Your task to perform on an android device: Open Google Maps and go to "Timeline" Image 0: 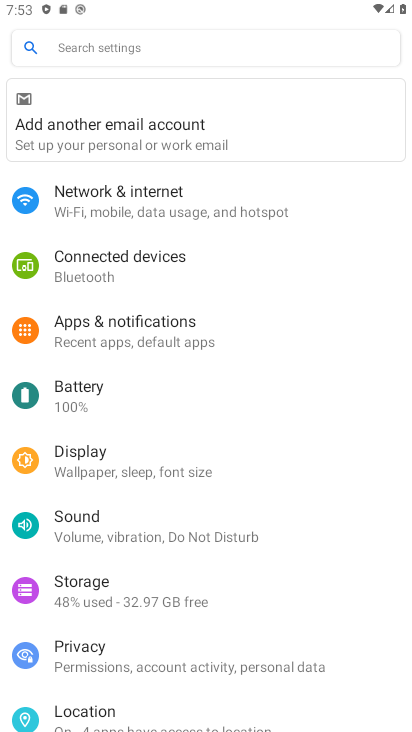
Step 0: press home button
Your task to perform on an android device: Open Google Maps and go to "Timeline" Image 1: 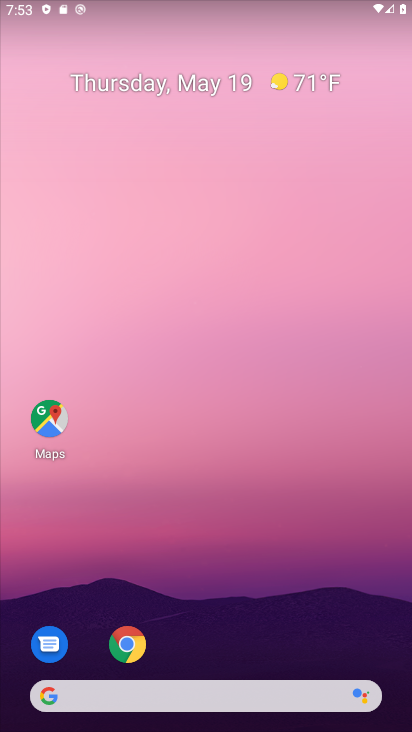
Step 1: drag from (259, 720) to (336, 123)
Your task to perform on an android device: Open Google Maps and go to "Timeline" Image 2: 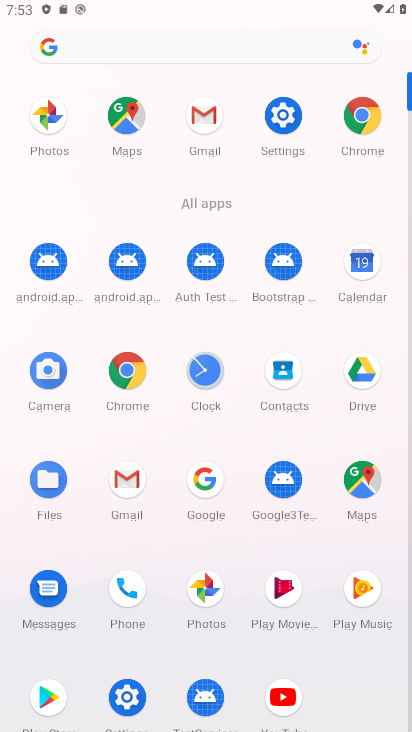
Step 2: click (142, 103)
Your task to perform on an android device: Open Google Maps and go to "Timeline" Image 3: 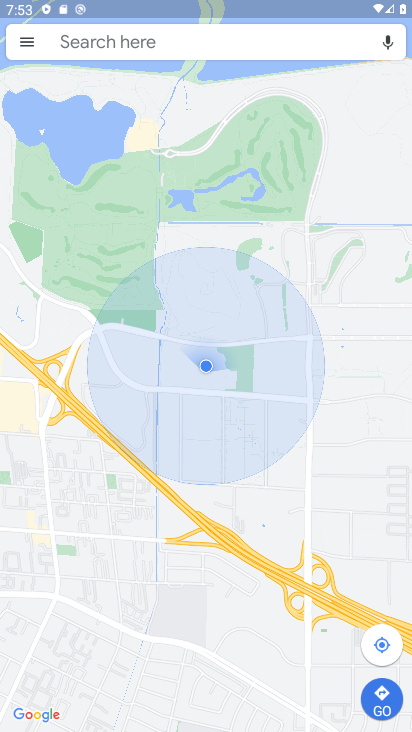
Step 3: click (19, 40)
Your task to perform on an android device: Open Google Maps and go to "Timeline" Image 4: 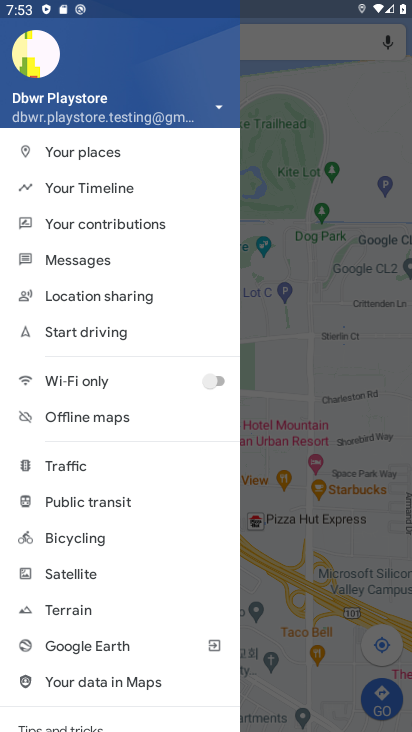
Step 4: click (71, 204)
Your task to perform on an android device: Open Google Maps and go to "Timeline" Image 5: 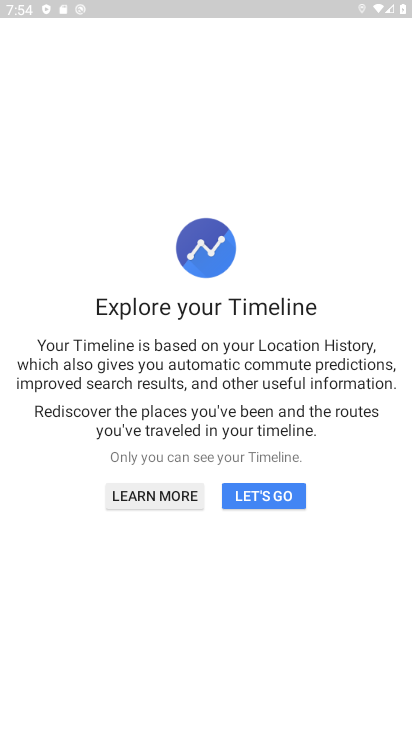
Step 5: click (245, 501)
Your task to perform on an android device: Open Google Maps and go to "Timeline" Image 6: 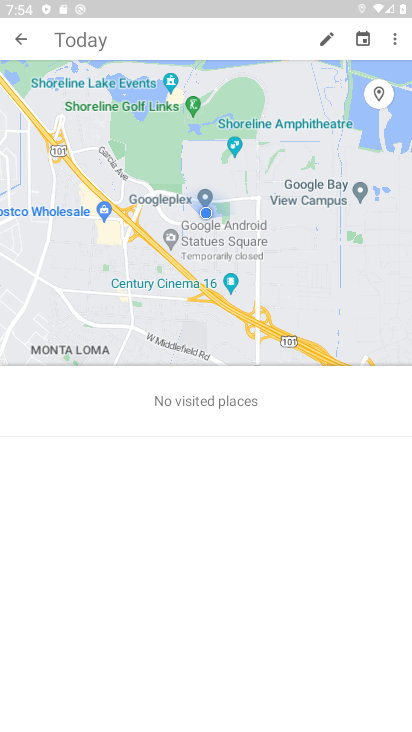
Step 6: task complete